Your task to perform on an android device: Show me popular games on the Play Store Image 0: 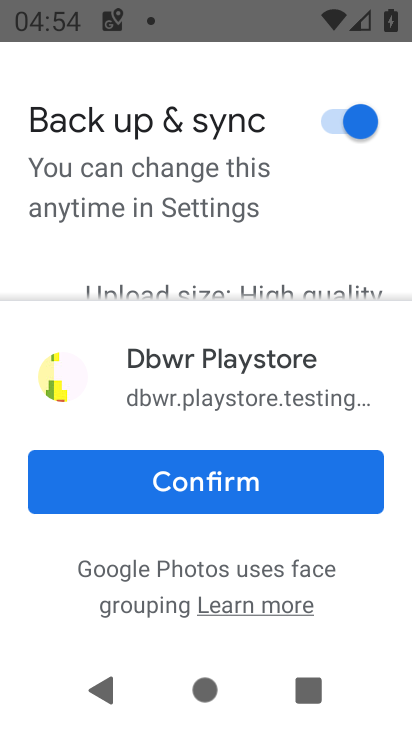
Step 0: press home button
Your task to perform on an android device: Show me popular games on the Play Store Image 1: 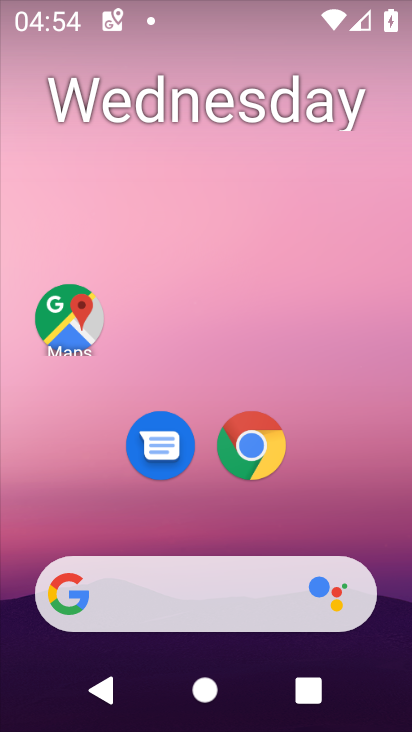
Step 1: drag from (201, 539) to (213, 109)
Your task to perform on an android device: Show me popular games on the Play Store Image 2: 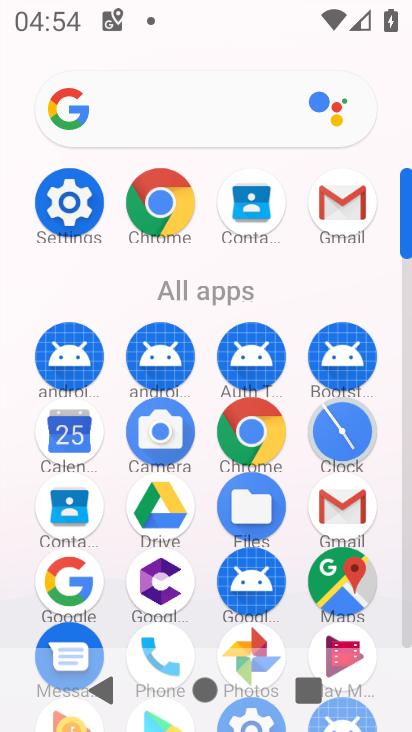
Step 2: drag from (197, 609) to (207, 118)
Your task to perform on an android device: Show me popular games on the Play Store Image 3: 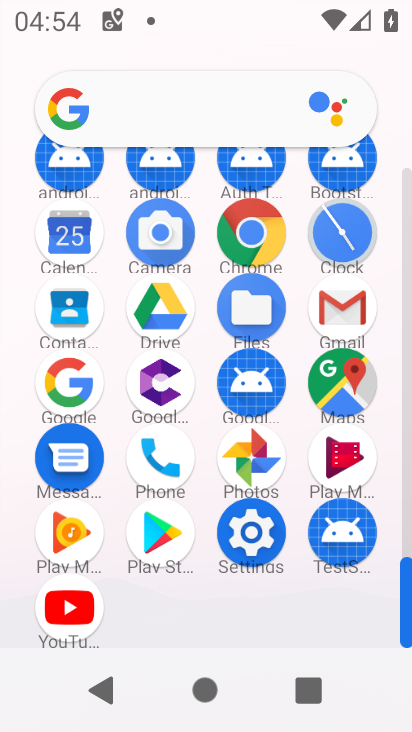
Step 3: click (156, 562)
Your task to perform on an android device: Show me popular games on the Play Store Image 4: 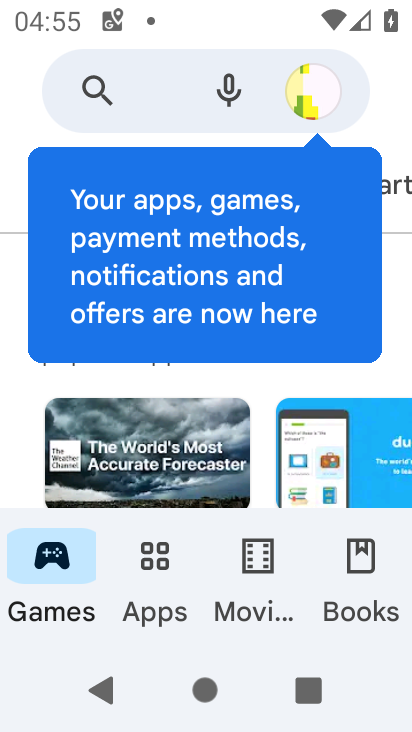
Step 4: click (11, 399)
Your task to perform on an android device: Show me popular games on the Play Store Image 5: 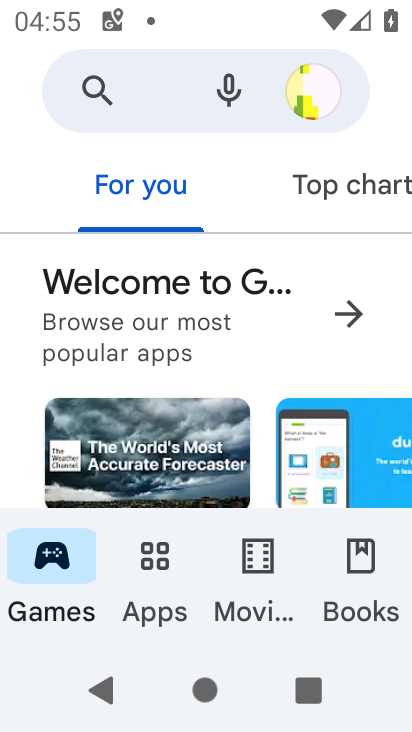
Step 5: click (321, 187)
Your task to perform on an android device: Show me popular games on the Play Store Image 6: 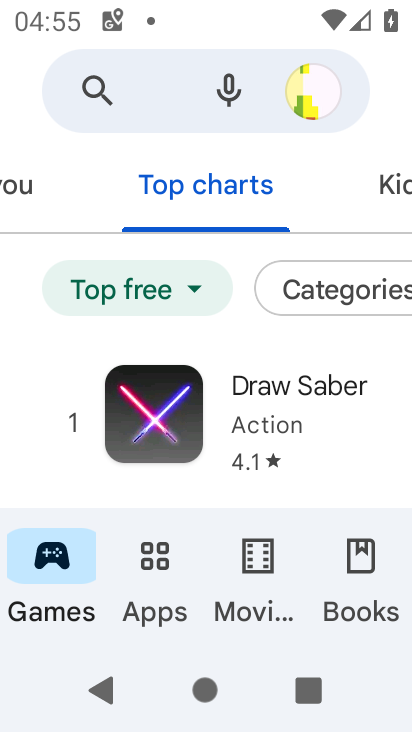
Step 6: task complete